Your task to perform on an android device: Go to display settings Image 0: 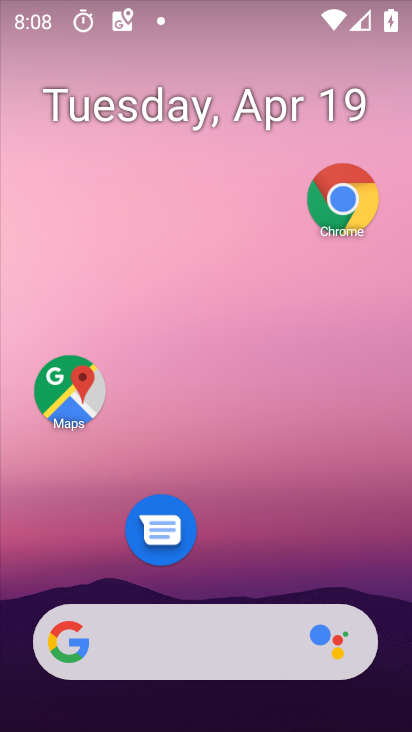
Step 0: drag from (222, 591) to (269, 132)
Your task to perform on an android device: Go to display settings Image 1: 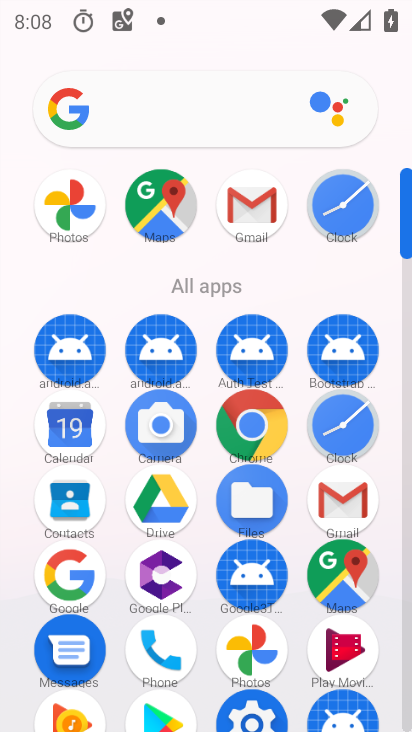
Step 1: click (259, 706)
Your task to perform on an android device: Go to display settings Image 2: 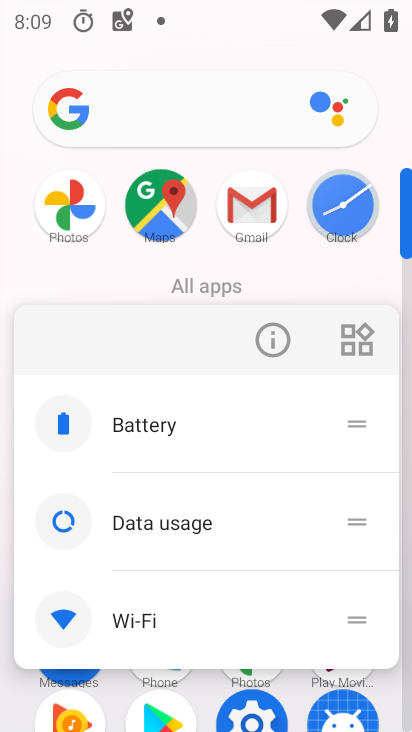
Step 2: click (267, 344)
Your task to perform on an android device: Go to display settings Image 3: 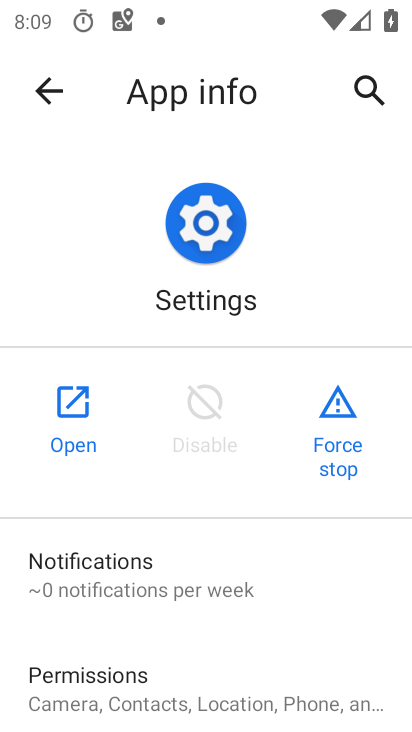
Step 3: click (81, 407)
Your task to perform on an android device: Go to display settings Image 4: 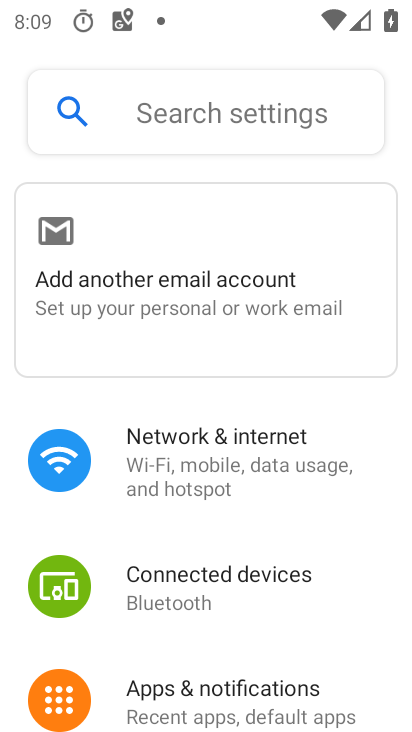
Step 4: drag from (200, 641) to (244, 135)
Your task to perform on an android device: Go to display settings Image 5: 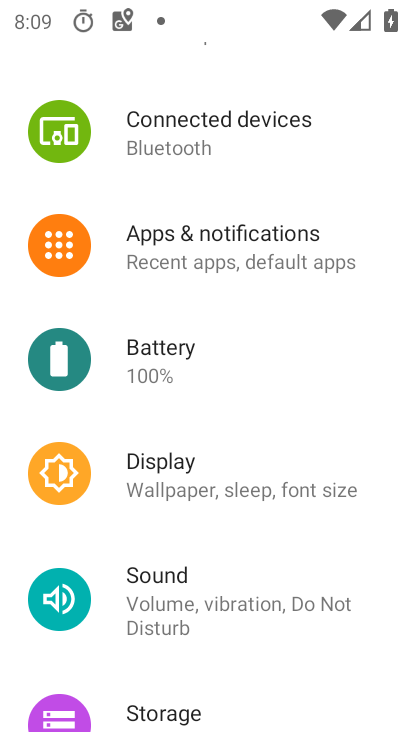
Step 5: click (220, 488)
Your task to perform on an android device: Go to display settings Image 6: 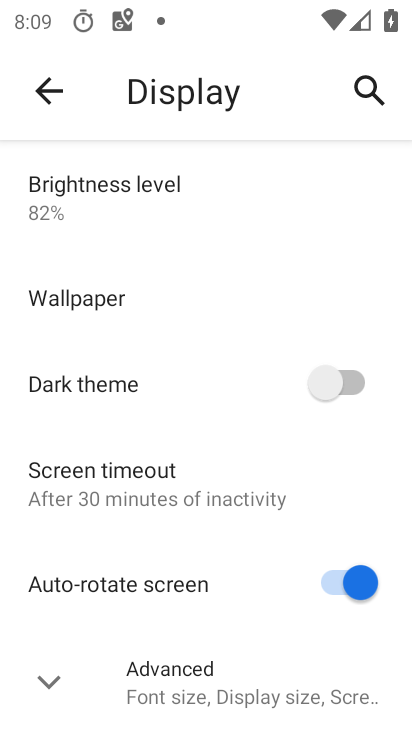
Step 6: task complete